Your task to perform on an android device: change notification settings in the gmail app Image 0: 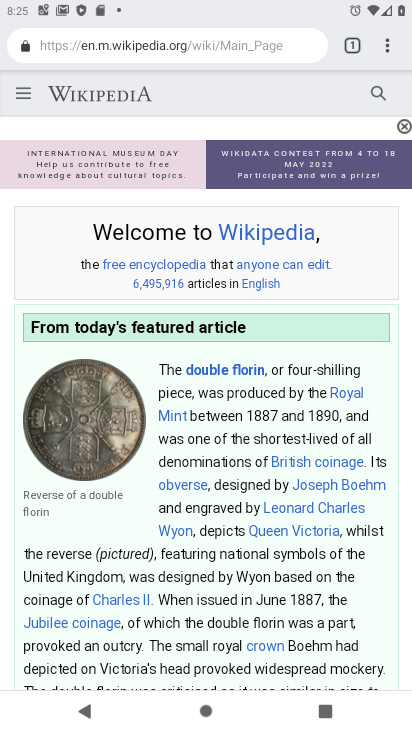
Step 0: press home button
Your task to perform on an android device: change notification settings in the gmail app Image 1: 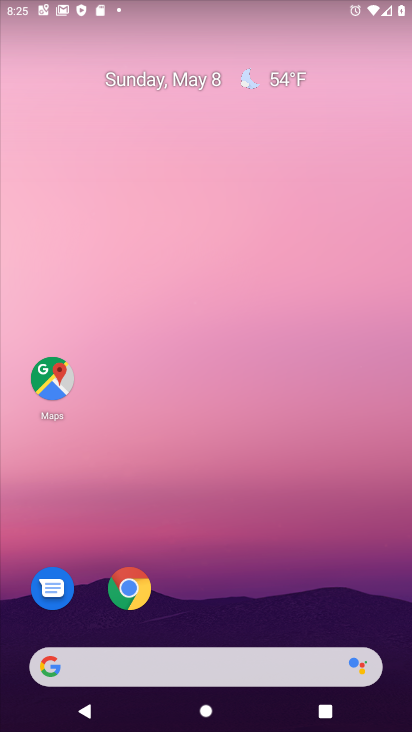
Step 1: drag from (229, 623) to (217, 6)
Your task to perform on an android device: change notification settings in the gmail app Image 2: 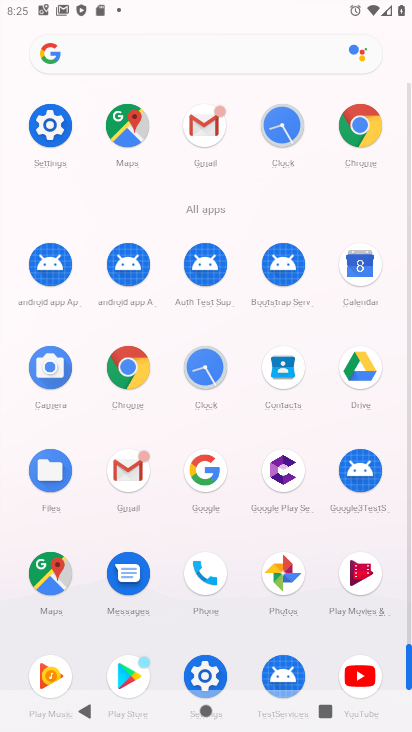
Step 2: click (200, 117)
Your task to perform on an android device: change notification settings in the gmail app Image 3: 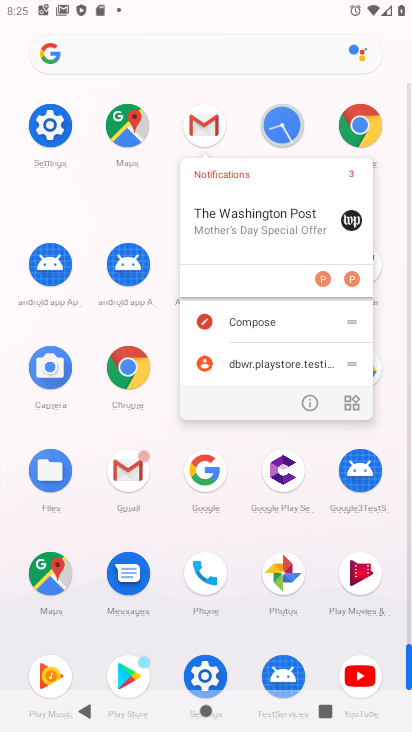
Step 3: click (311, 399)
Your task to perform on an android device: change notification settings in the gmail app Image 4: 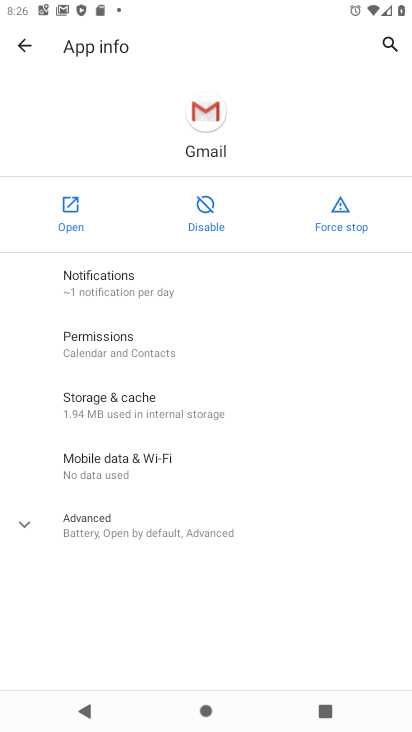
Step 4: click (124, 284)
Your task to perform on an android device: change notification settings in the gmail app Image 5: 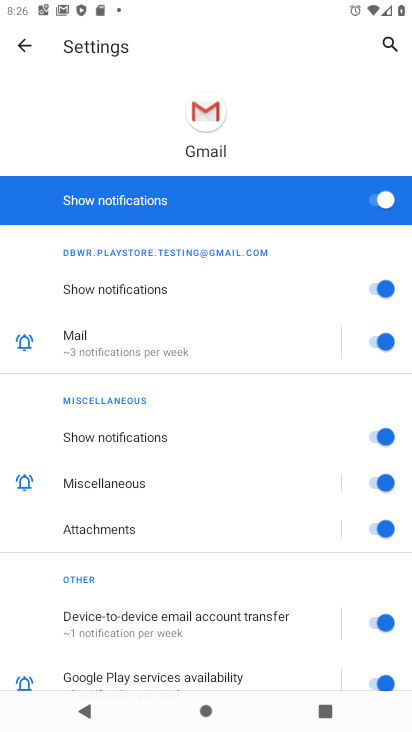
Step 5: click (387, 201)
Your task to perform on an android device: change notification settings in the gmail app Image 6: 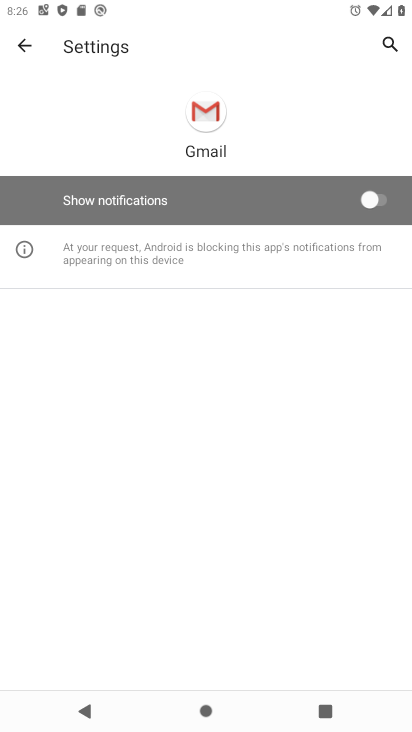
Step 6: task complete